Your task to perform on an android device: toggle sleep mode Image 0: 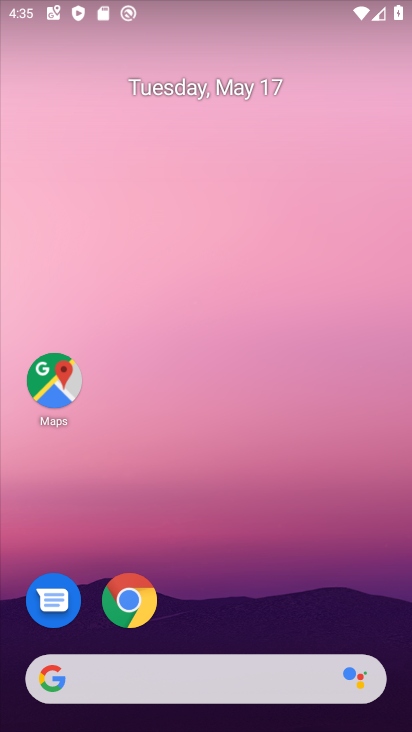
Step 0: drag from (249, 623) to (308, 0)
Your task to perform on an android device: toggle sleep mode Image 1: 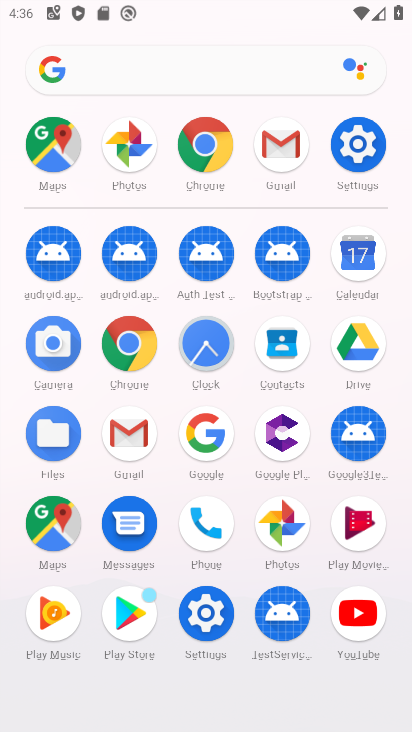
Step 1: click (356, 182)
Your task to perform on an android device: toggle sleep mode Image 2: 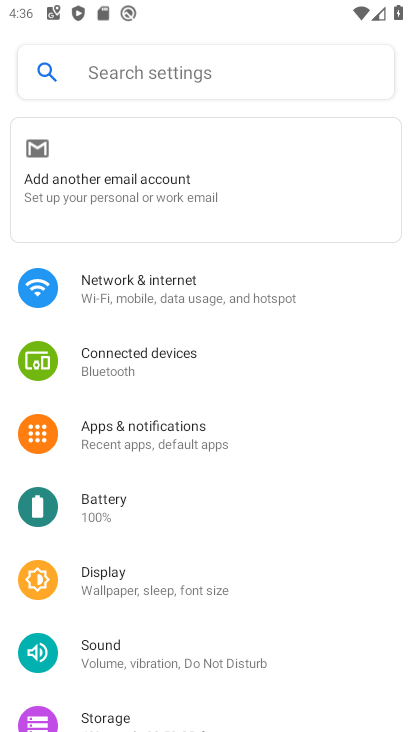
Step 2: click (188, 81)
Your task to perform on an android device: toggle sleep mode Image 3: 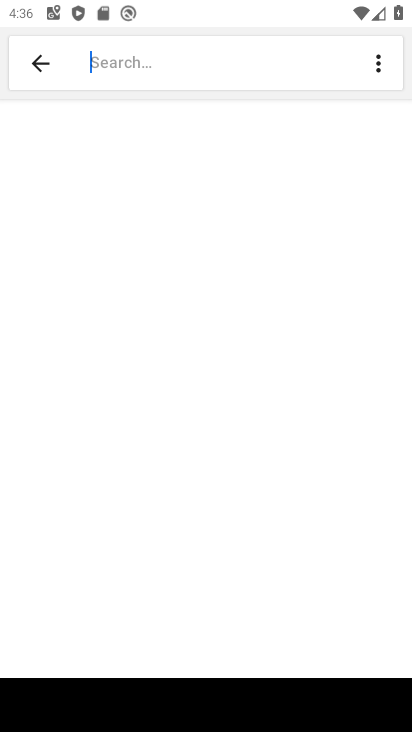
Step 3: type "sleep mode"
Your task to perform on an android device: toggle sleep mode Image 4: 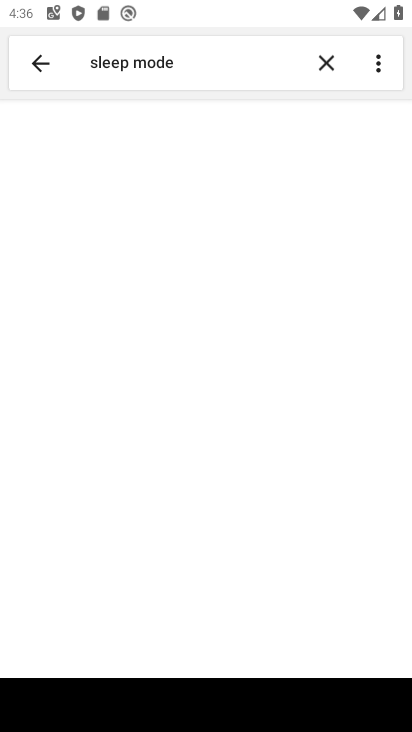
Step 4: click (152, 176)
Your task to perform on an android device: toggle sleep mode Image 5: 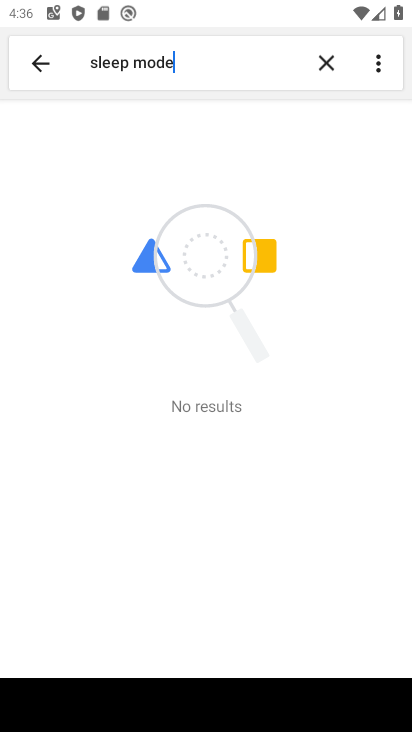
Step 5: task complete